Your task to perform on an android device: What's the weather going to be tomorrow? Image 0: 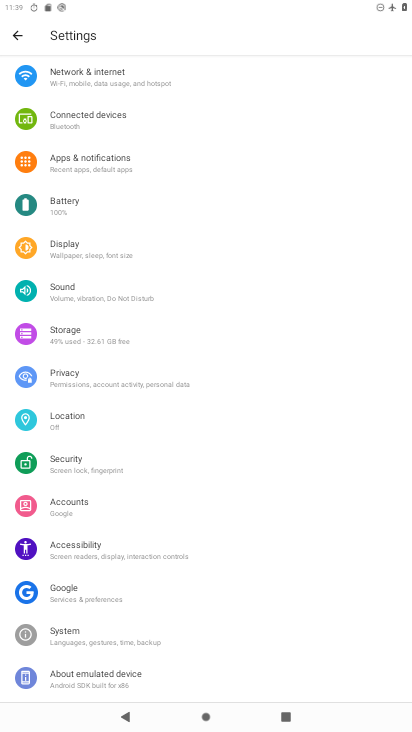
Step 0: press home button
Your task to perform on an android device: What's the weather going to be tomorrow? Image 1: 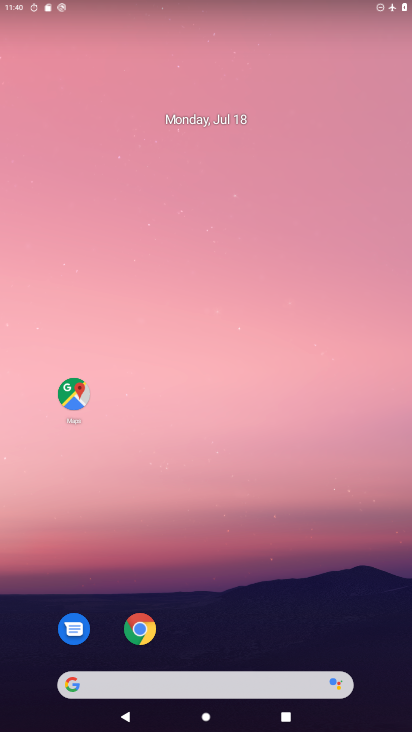
Step 1: drag from (271, 427) to (290, 0)
Your task to perform on an android device: What's the weather going to be tomorrow? Image 2: 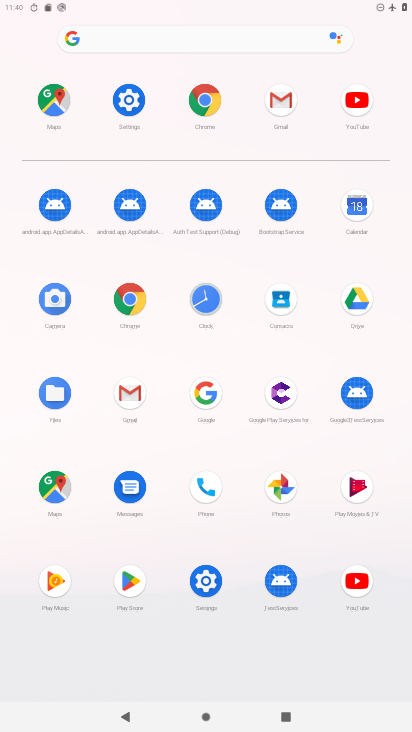
Step 2: click (205, 101)
Your task to perform on an android device: What's the weather going to be tomorrow? Image 3: 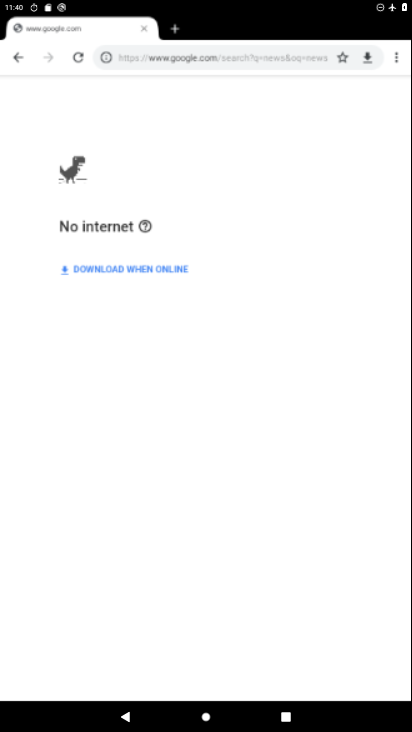
Step 3: click (243, 57)
Your task to perform on an android device: What's the weather going to be tomorrow? Image 4: 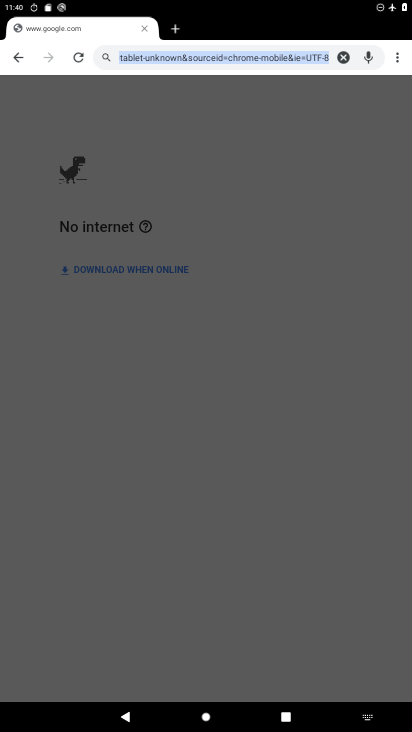
Step 4: type "weather"
Your task to perform on an android device: What's the weather going to be tomorrow? Image 5: 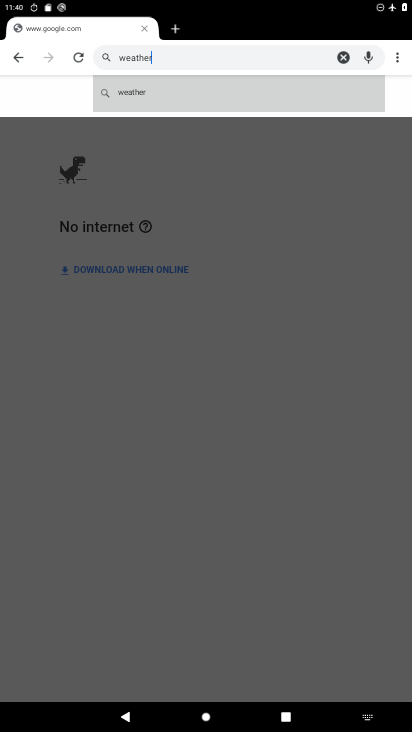
Step 5: click (143, 95)
Your task to perform on an android device: What's the weather going to be tomorrow? Image 6: 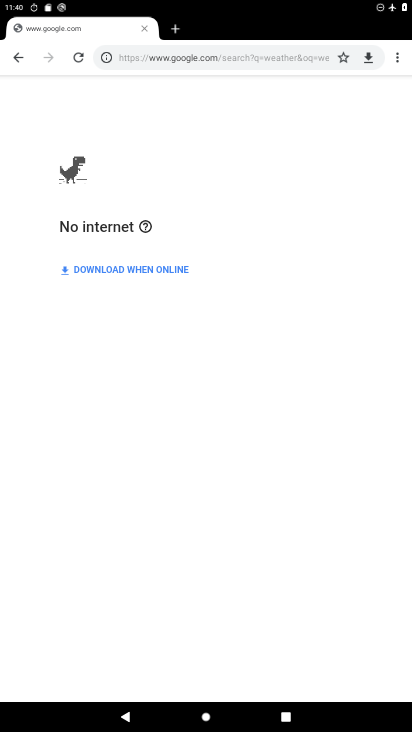
Step 6: task complete